Your task to perform on an android device: What's the weather going to be this weekend? Image 0: 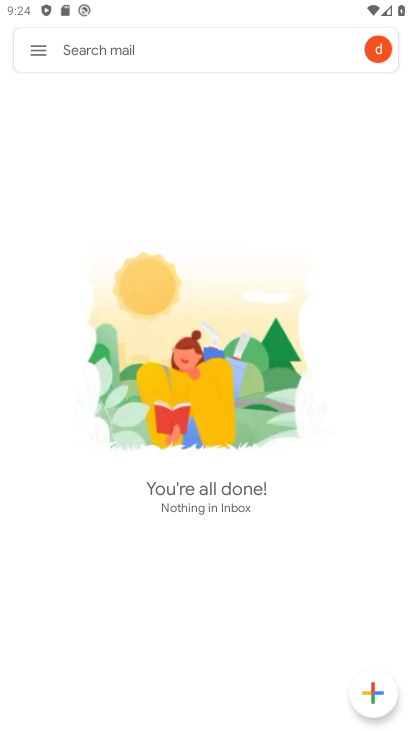
Step 0: press home button
Your task to perform on an android device: What's the weather going to be this weekend? Image 1: 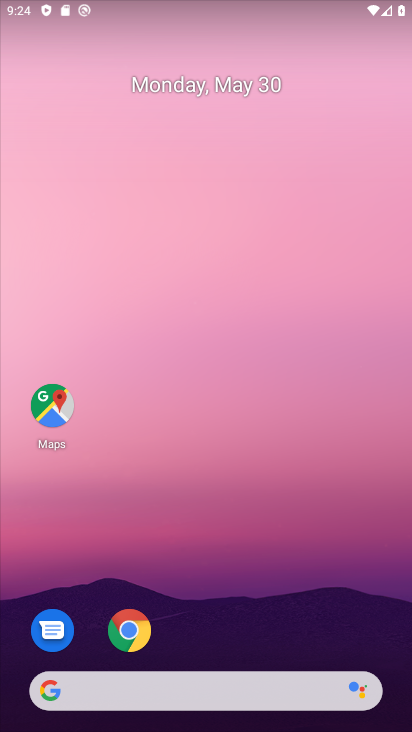
Step 1: drag from (290, 609) to (254, 134)
Your task to perform on an android device: What's the weather going to be this weekend? Image 2: 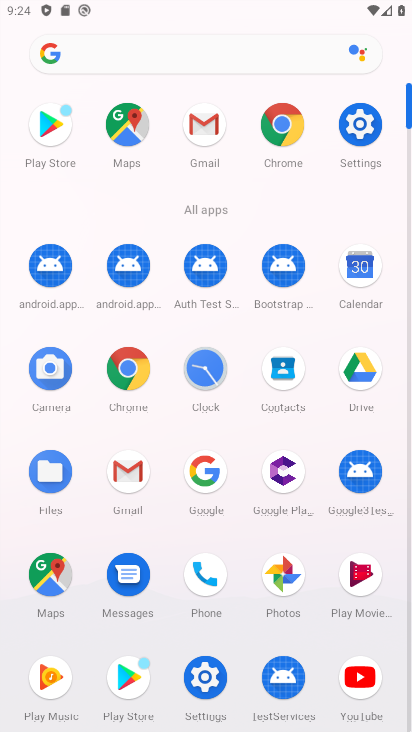
Step 2: click (231, 65)
Your task to perform on an android device: What's the weather going to be this weekend? Image 3: 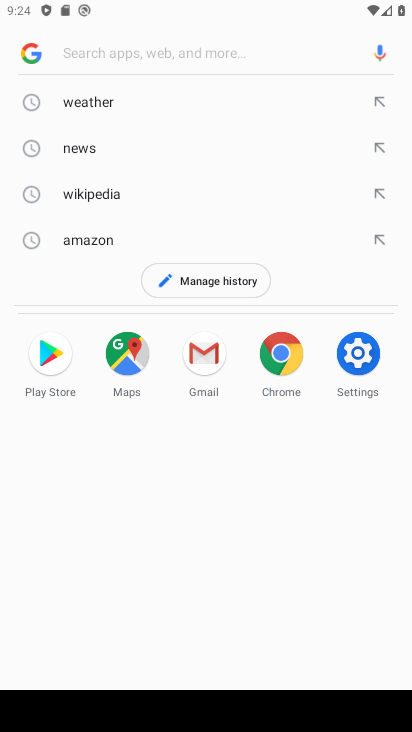
Step 3: click (125, 98)
Your task to perform on an android device: What's the weather going to be this weekend? Image 4: 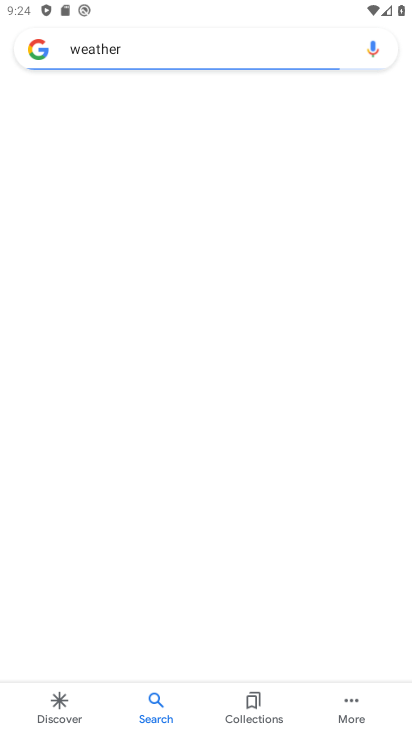
Step 4: task complete